Your task to perform on an android device: Open Google Chrome and click the shortcut for Amazon.com Image 0: 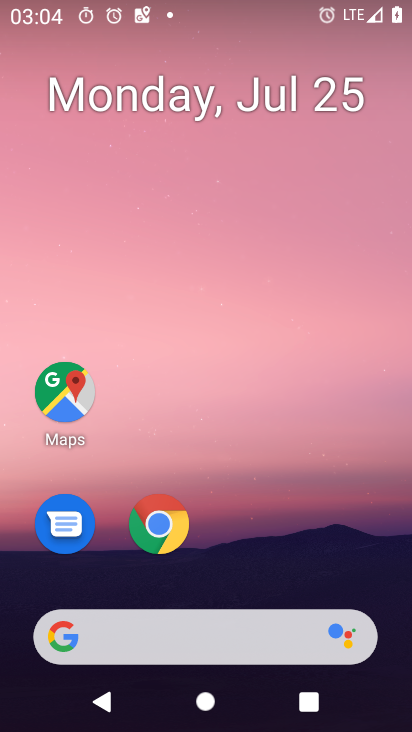
Step 0: press home button
Your task to perform on an android device: Open Google Chrome and click the shortcut for Amazon.com Image 1: 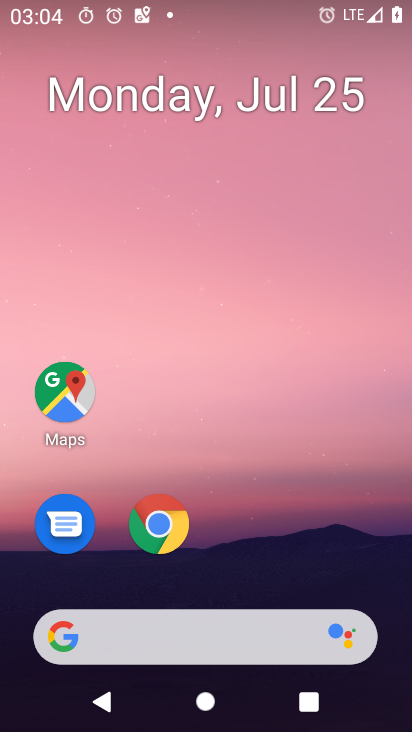
Step 1: drag from (276, 562) to (253, 142)
Your task to perform on an android device: Open Google Chrome and click the shortcut for Amazon.com Image 2: 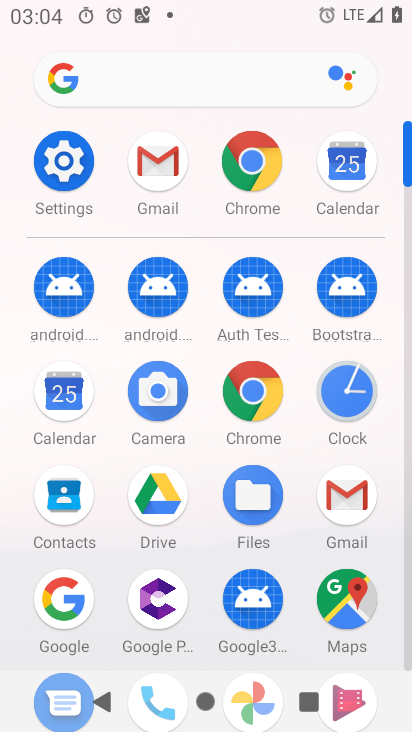
Step 2: click (260, 160)
Your task to perform on an android device: Open Google Chrome and click the shortcut for Amazon.com Image 3: 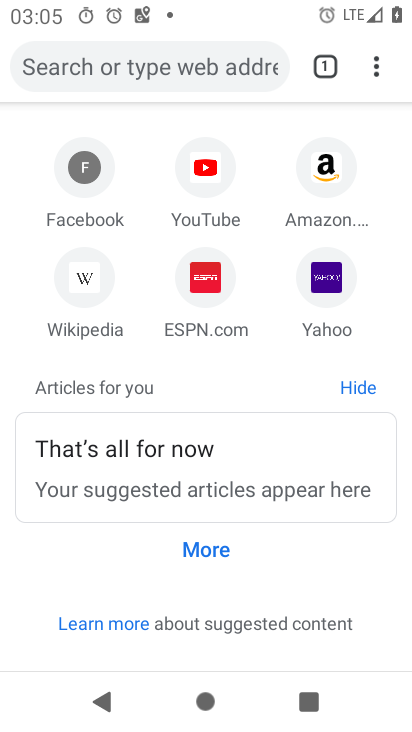
Step 3: click (325, 176)
Your task to perform on an android device: Open Google Chrome and click the shortcut for Amazon.com Image 4: 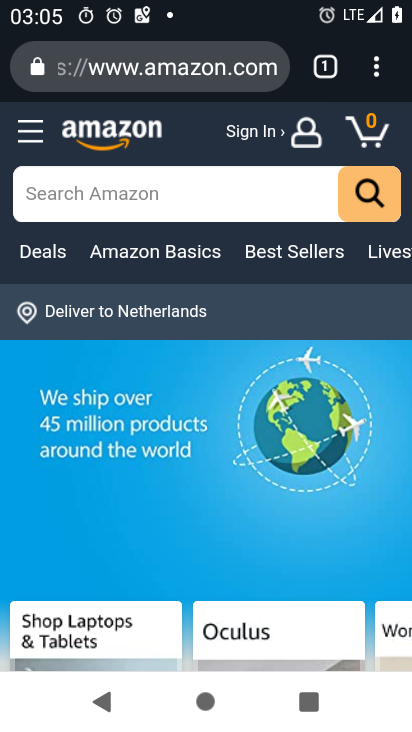
Step 4: task complete